Your task to perform on an android device: What's on my calendar tomorrow? Image 0: 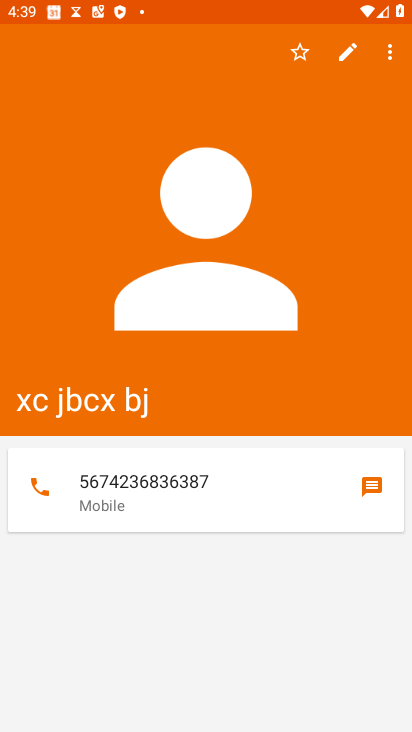
Step 0: press back button
Your task to perform on an android device: What's on my calendar tomorrow? Image 1: 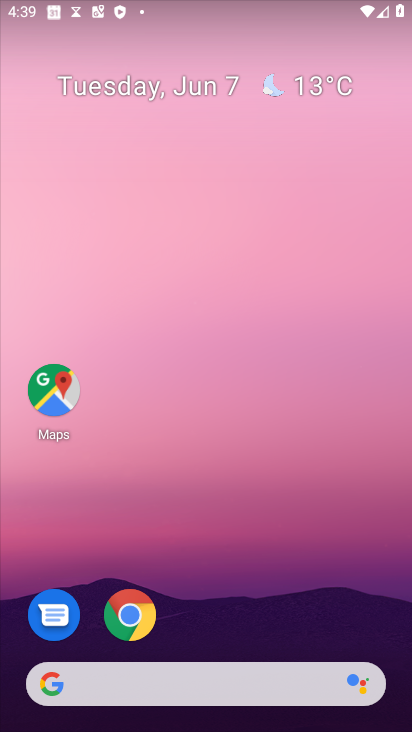
Step 1: drag from (258, 634) to (195, 22)
Your task to perform on an android device: What's on my calendar tomorrow? Image 2: 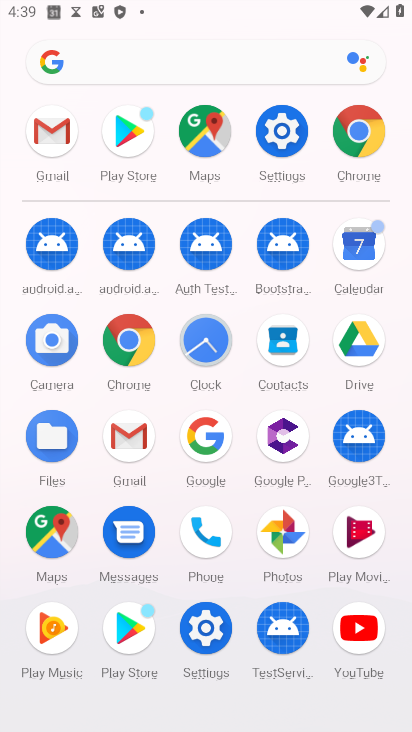
Step 2: click (372, 245)
Your task to perform on an android device: What's on my calendar tomorrow? Image 3: 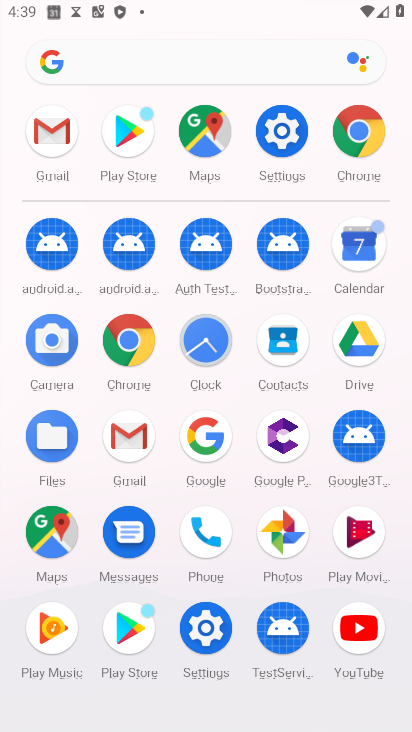
Step 3: click (373, 245)
Your task to perform on an android device: What's on my calendar tomorrow? Image 4: 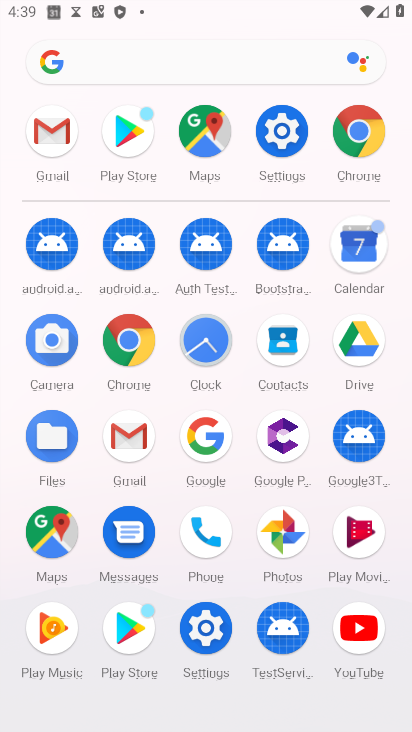
Step 4: click (374, 245)
Your task to perform on an android device: What's on my calendar tomorrow? Image 5: 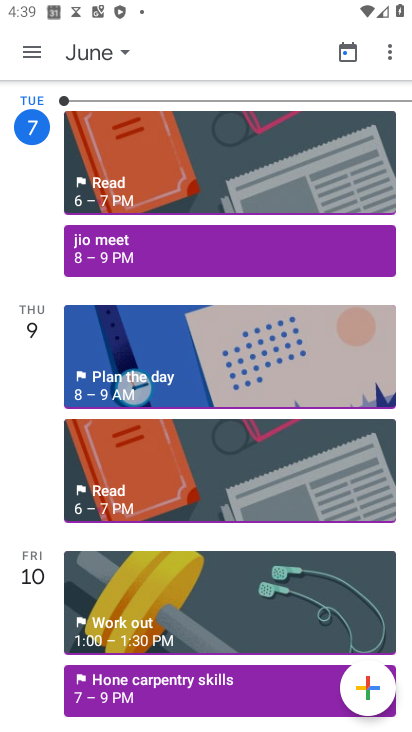
Step 5: click (124, 52)
Your task to perform on an android device: What's on my calendar tomorrow? Image 6: 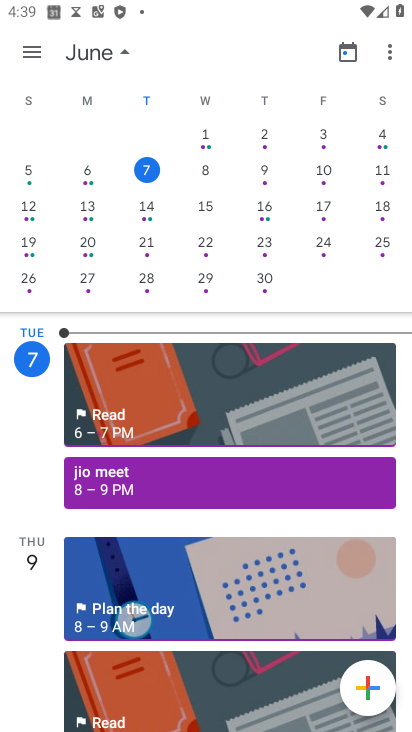
Step 6: click (200, 164)
Your task to perform on an android device: What's on my calendar tomorrow? Image 7: 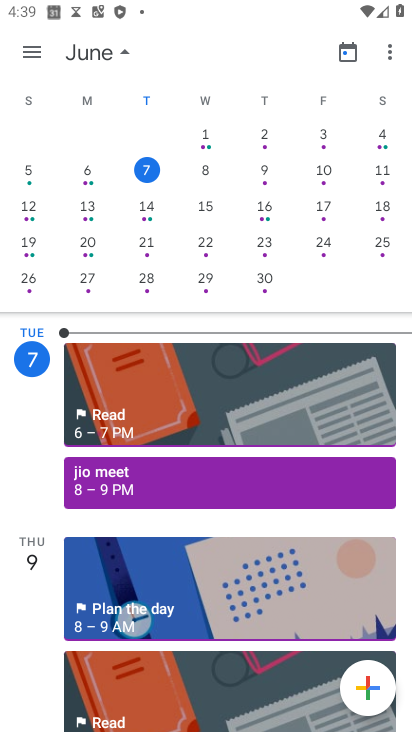
Step 7: click (201, 166)
Your task to perform on an android device: What's on my calendar tomorrow? Image 8: 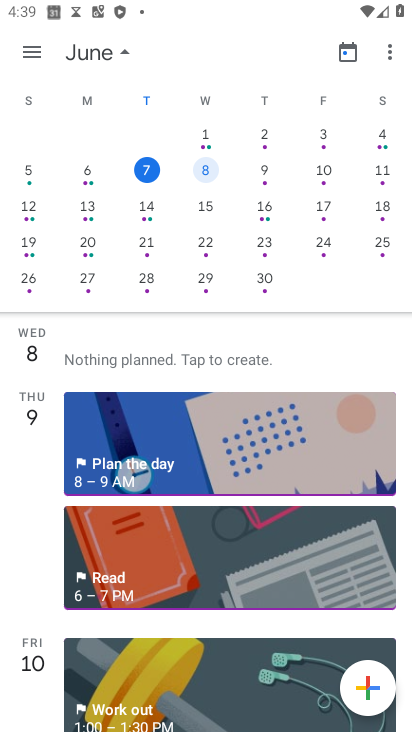
Step 8: task complete